Your task to perform on an android device: Empty the shopping cart on amazon.com. Add "razer blade" to the cart on amazon.com Image 0: 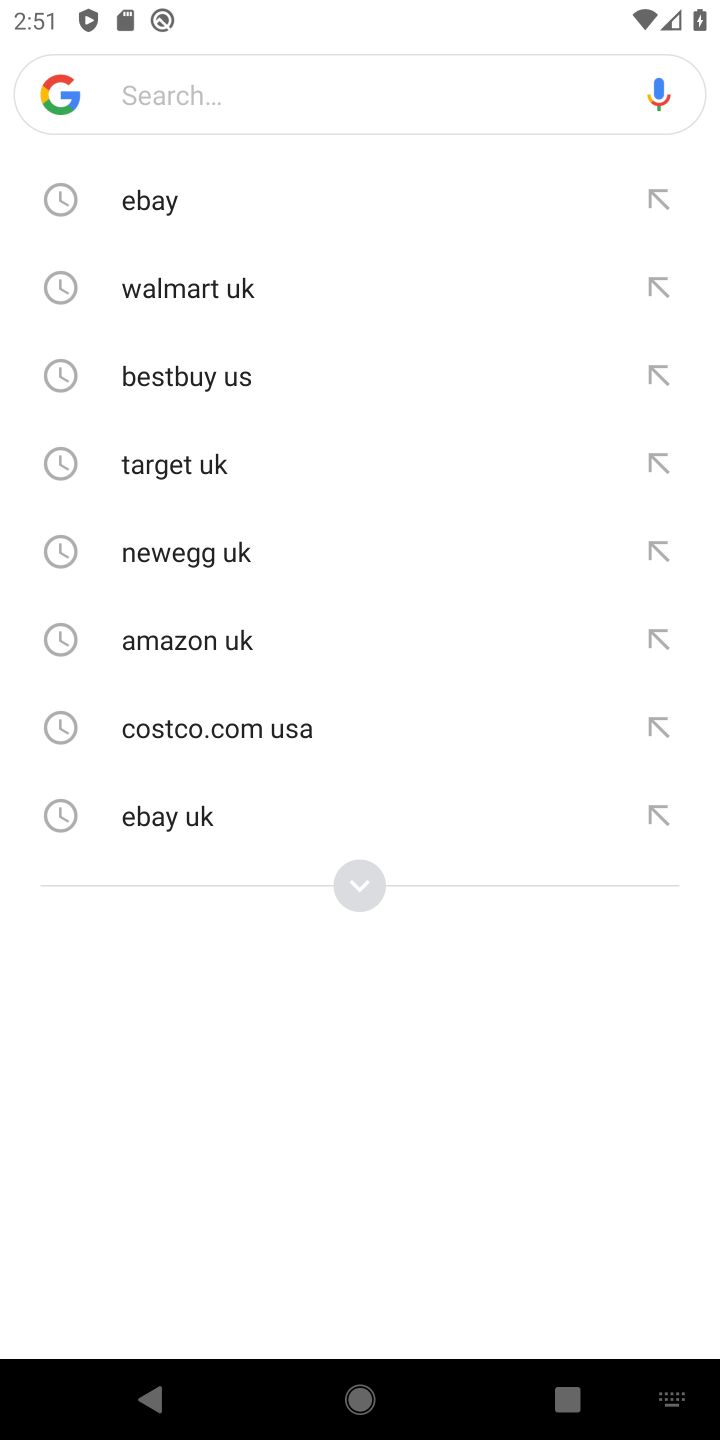
Step 0: click (248, 628)
Your task to perform on an android device: Empty the shopping cart on amazon.com. Add "razer blade" to the cart on amazon.com Image 1: 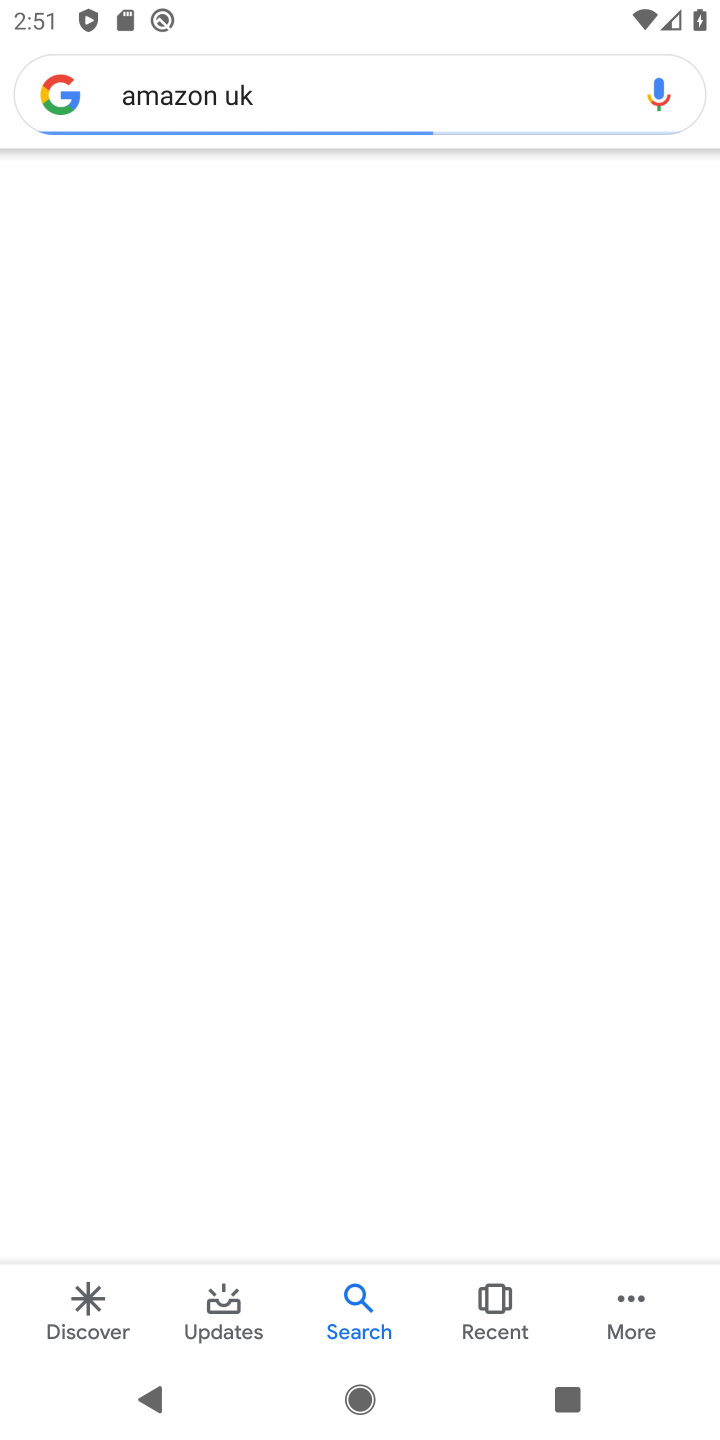
Step 1: click (248, 628)
Your task to perform on an android device: Empty the shopping cart on amazon.com. Add "razer blade" to the cart on amazon.com Image 2: 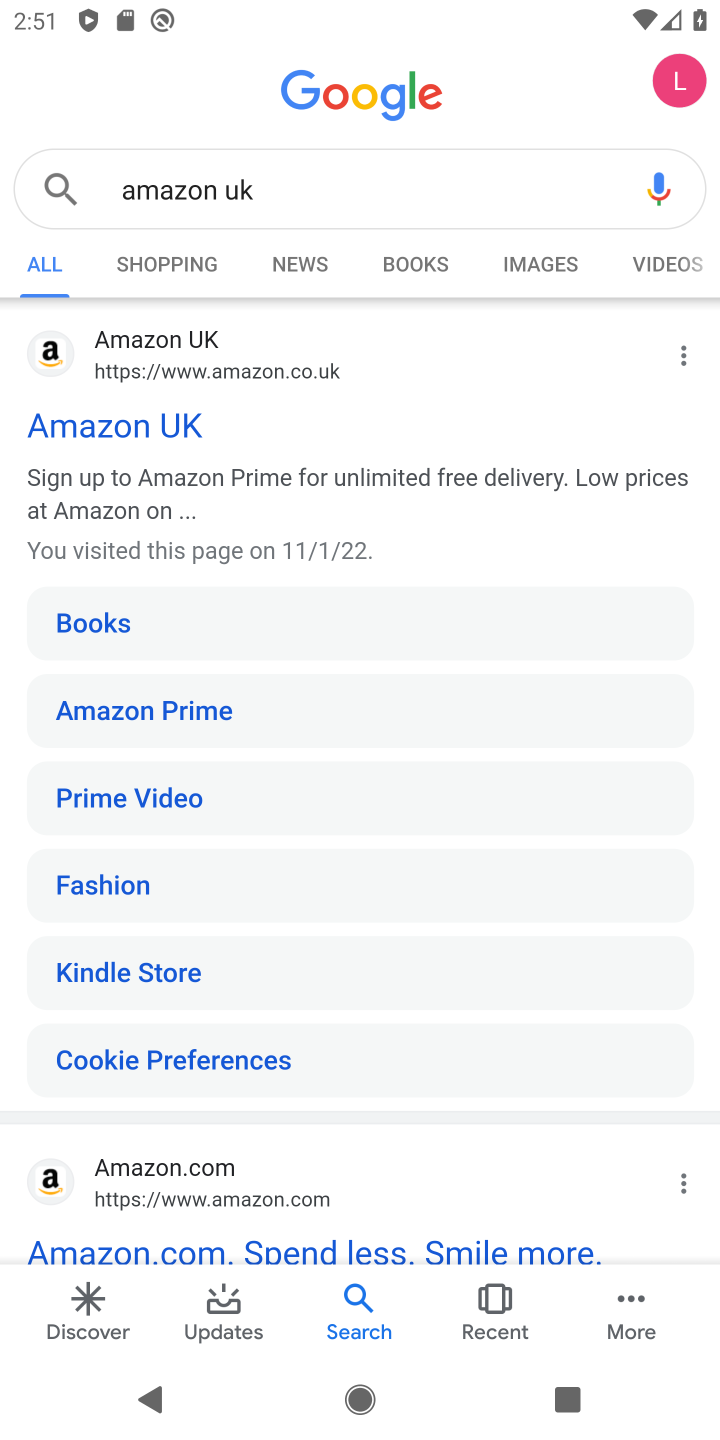
Step 2: click (109, 453)
Your task to perform on an android device: Empty the shopping cart on amazon.com. Add "razer blade" to the cart on amazon.com Image 3: 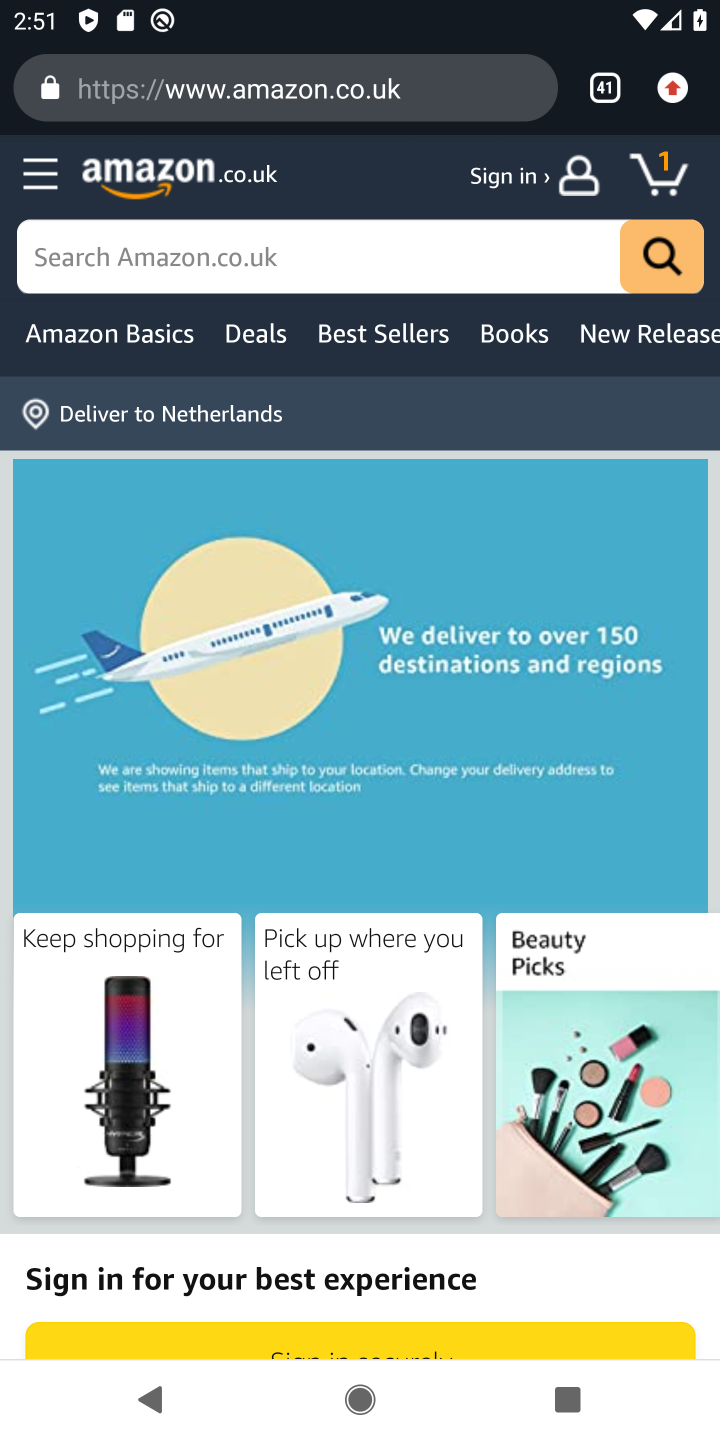
Step 3: click (223, 269)
Your task to perform on an android device: Empty the shopping cart on amazon.com. Add "razer blade" to the cart on amazon.com Image 4: 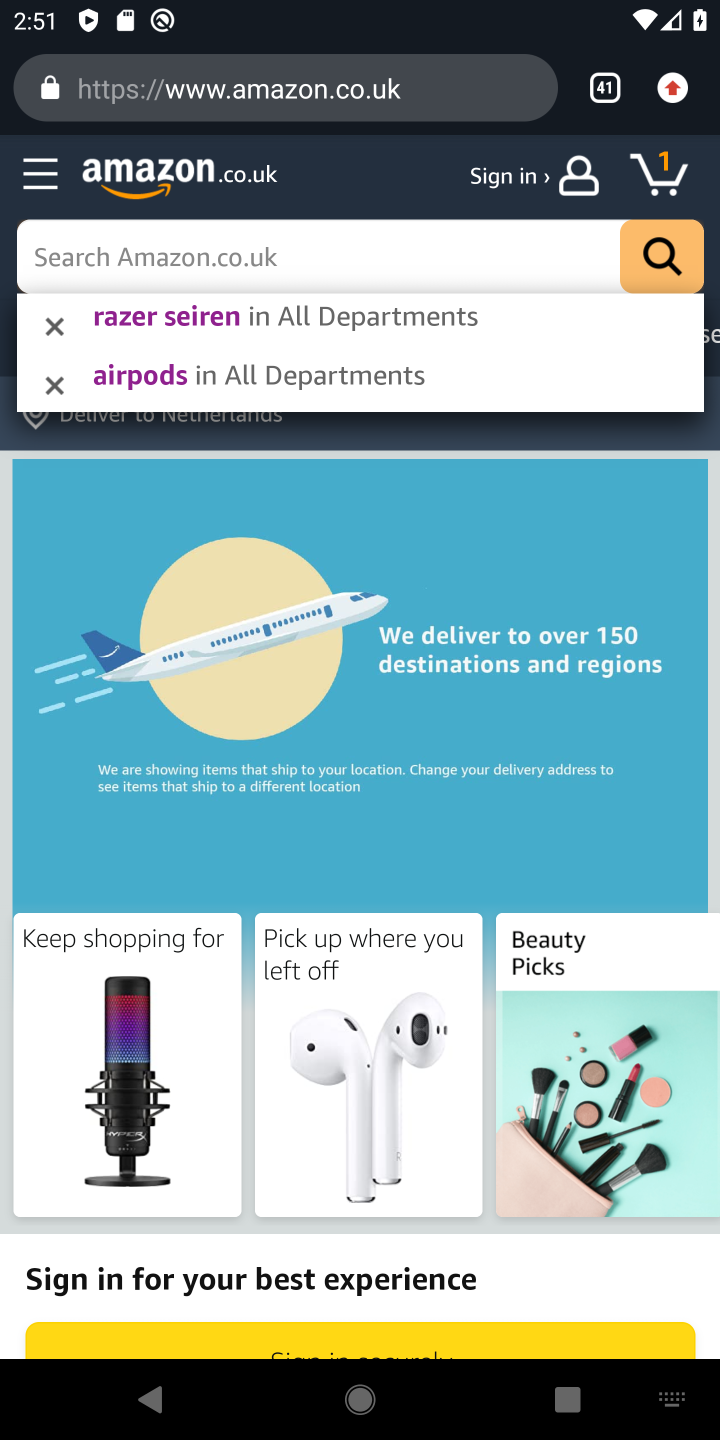
Step 4: type "razer blade"
Your task to perform on an android device: Empty the shopping cart on amazon.com. Add "razer blade" to the cart on amazon.com Image 5: 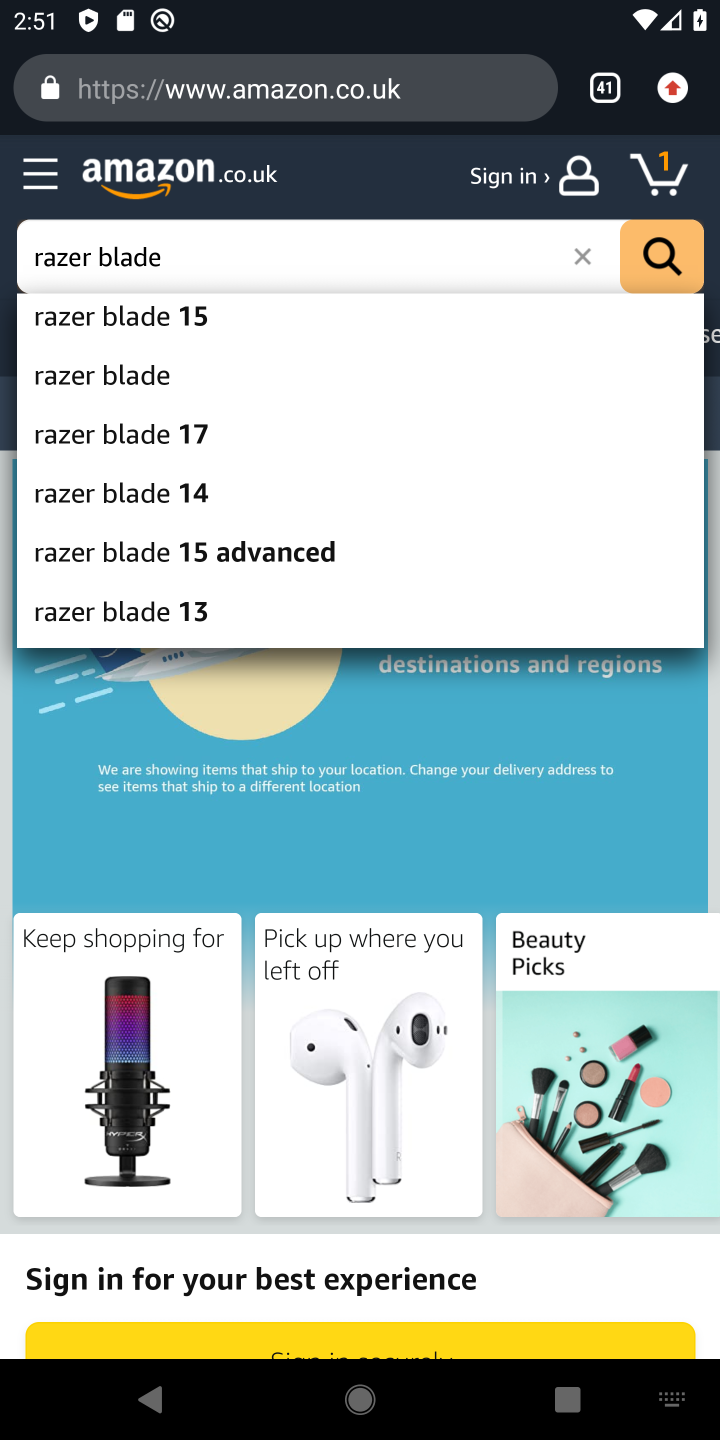
Step 5: click (123, 388)
Your task to perform on an android device: Empty the shopping cart on amazon.com. Add "razer blade" to the cart on amazon.com Image 6: 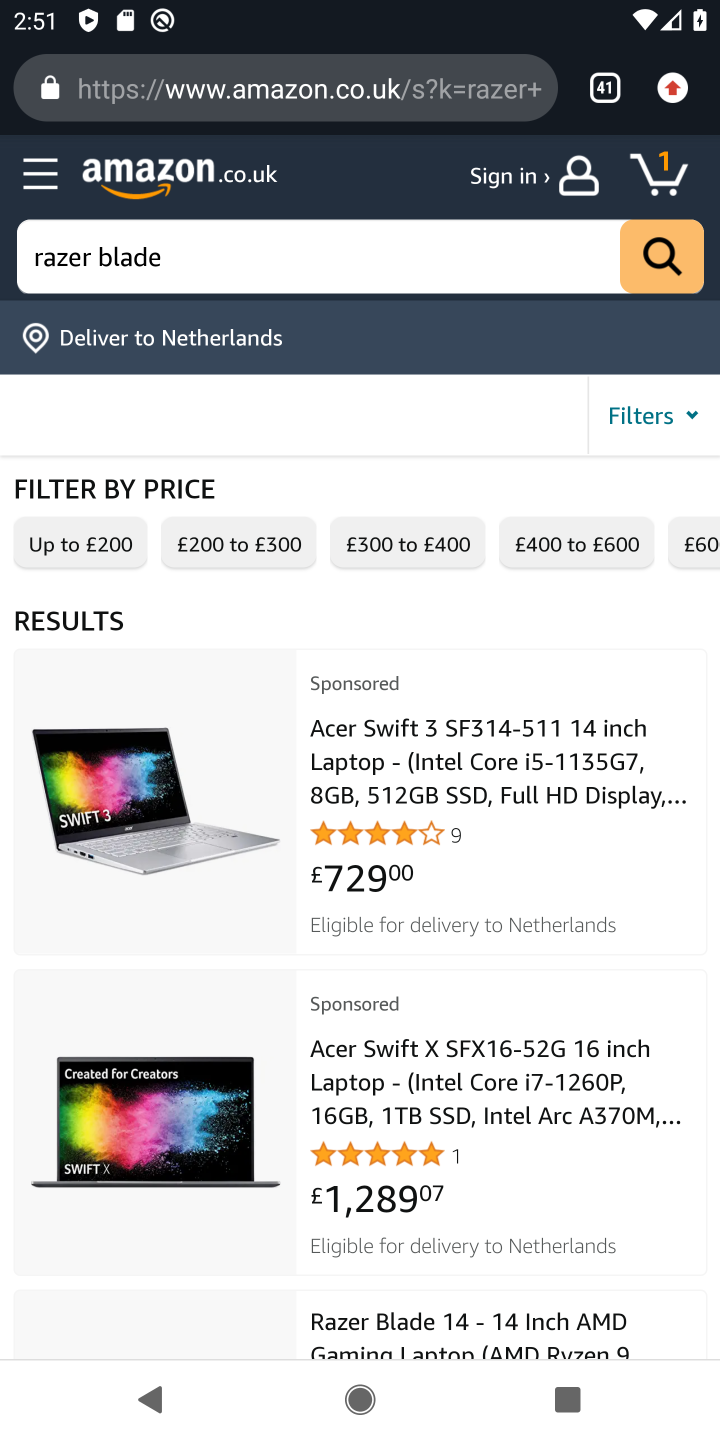
Step 6: click (400, 756)
Your task to perform on an android device: Empty the shopping cart on amazon.com. Add "razer blade" to the cart on amazon.com Image 7: 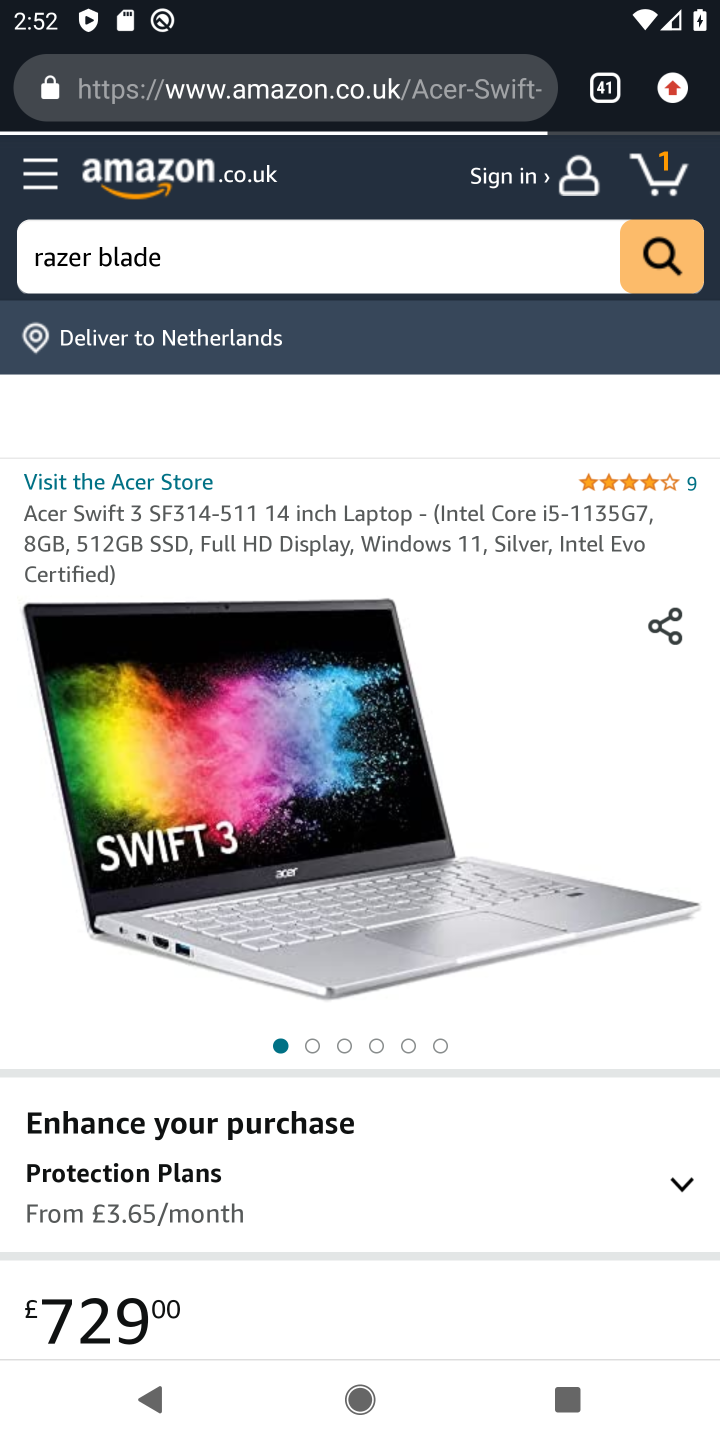
Step 7: drag from (446, 1163) to (294, 338)
Your task to perform on an android device: Empty the shopping cart on amazon.com. Add "razer blade" to the cart on amazon.com Image 8: 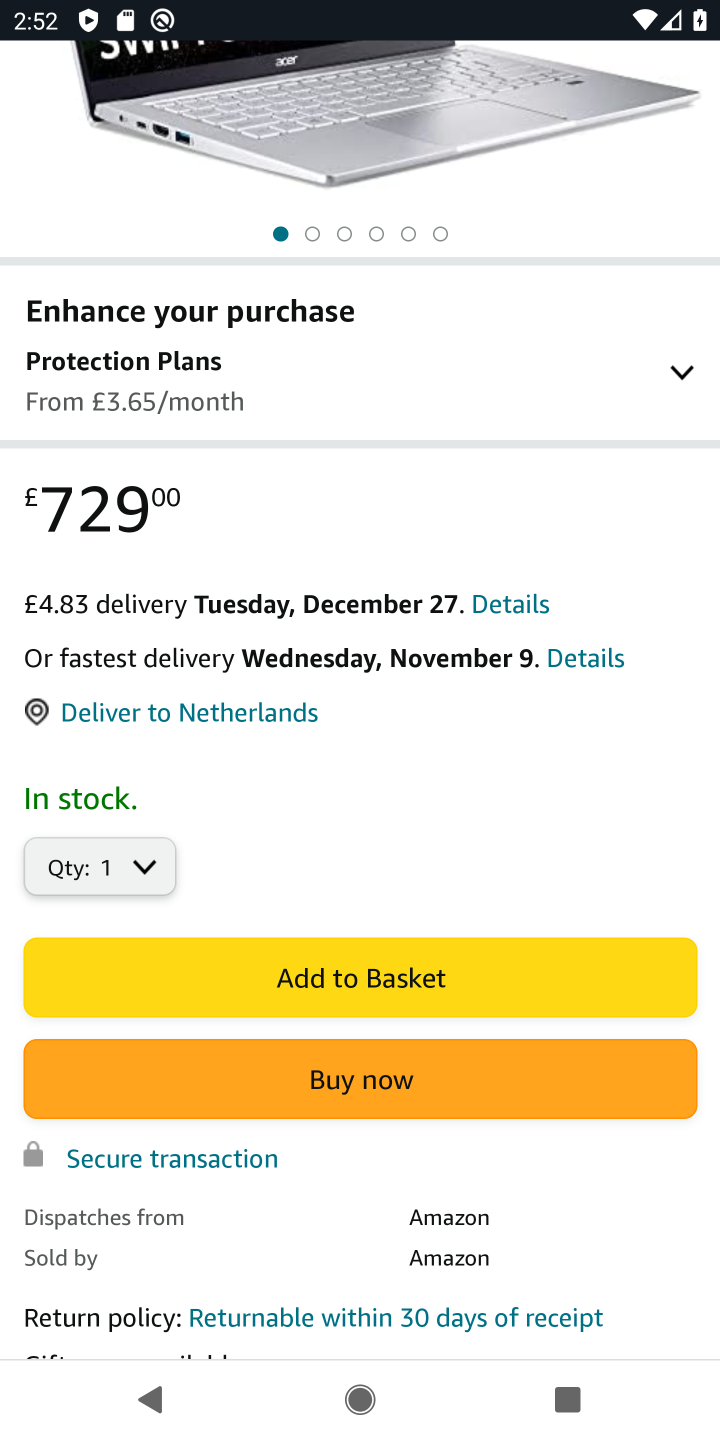
Step 8: click (462, 940)
Your task to perform on an android device: Empty the shopping cart on amazon.com. Add "razer blade" to the cart on amazon.com Image 9: 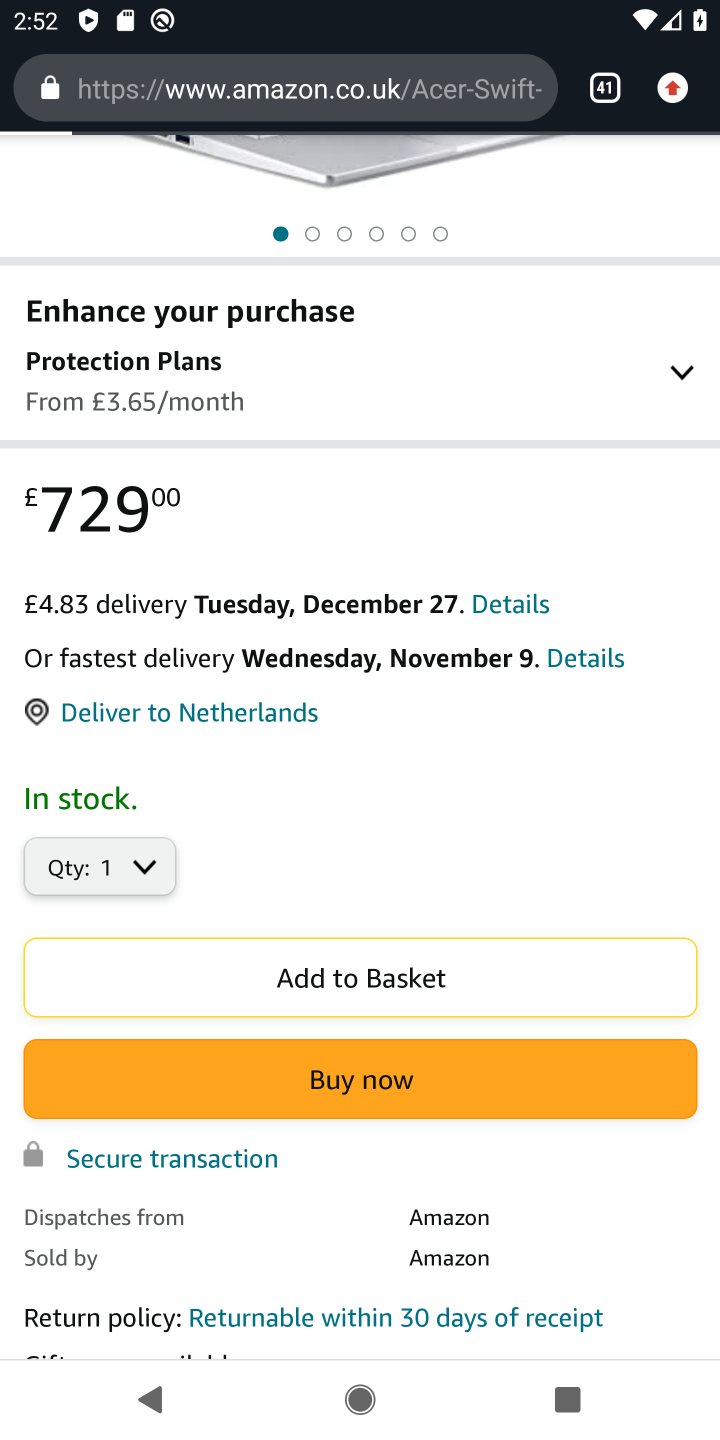
Step 9: task complete